Your task to perform on an android device: Open the Play Movies app and select the watchlist tab. Image 0: 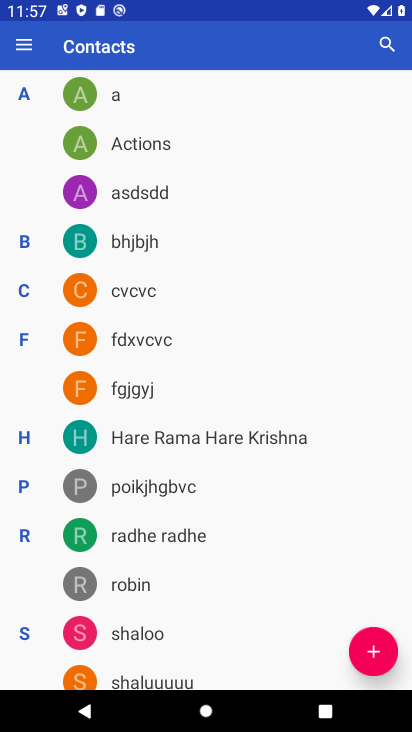
Step 0: press back button
Your task to perform on an android device: Open the Play Movies app and select the watchlist tab. Image 1: 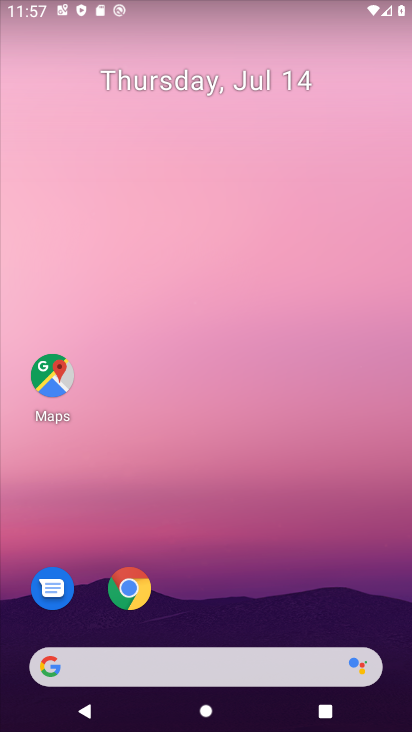
Step 1: drag from (378, 20) to (100, 228)
Your task to perform on an android device: Open the Play Movies app and select the watchlist tab. Image 2: 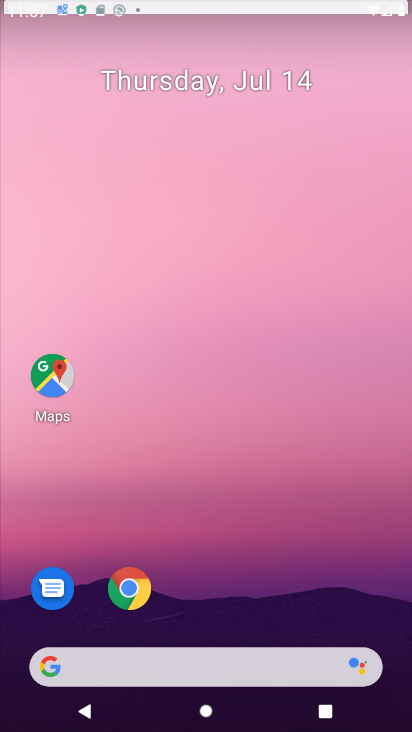
Step 2: drag from (286, 601) to (312, 85)
Your task to perform on an android device: Open the Play Movies app and select the watchlist tab. Image 3: 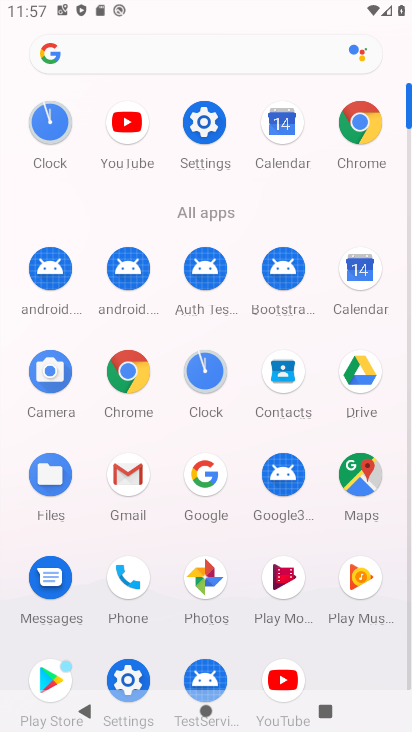
Step 3: click (289, 673)
Your task to perform on an android device: Open the Play Movies app and select the watchlist tab. Image 4: 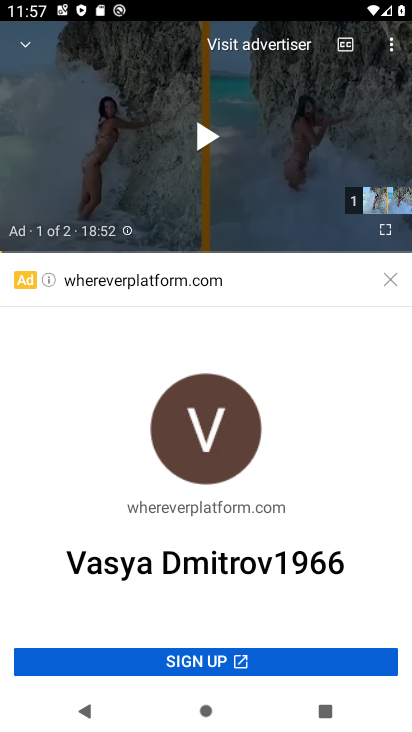
Step 4: press back button
Your task to perform on an android device: Open the Play Movies app and select the watchlist tab. Image 5: 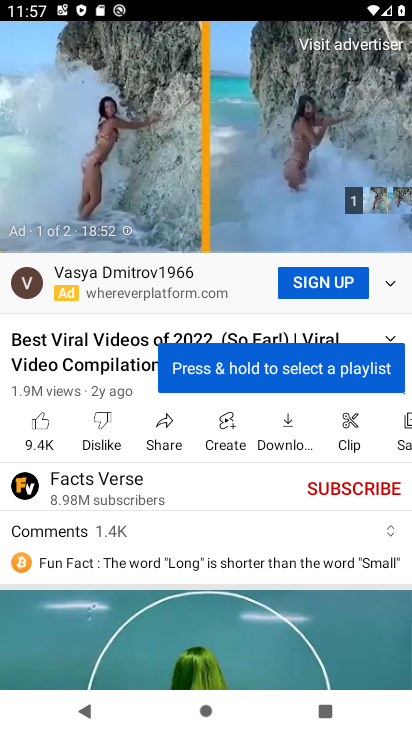
Step 5: press back button
Your task to perform on an android device: Open the Play Movies app and select the watchlist tab. Image 6: 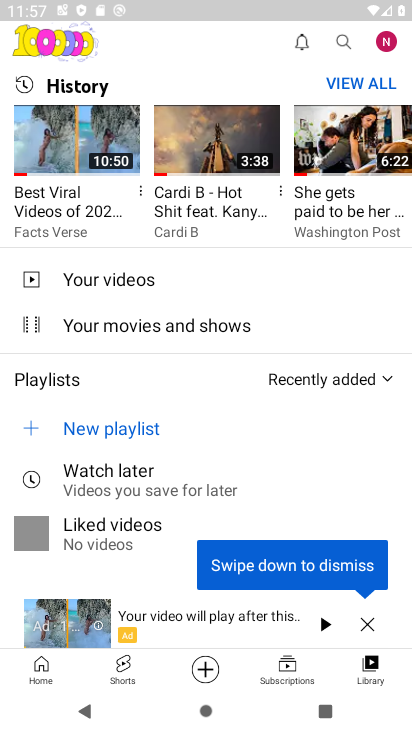
Step 6: press home button
Your task to perform on an android device: Open the Play Movies app and select the watchlist tab. Image 7: 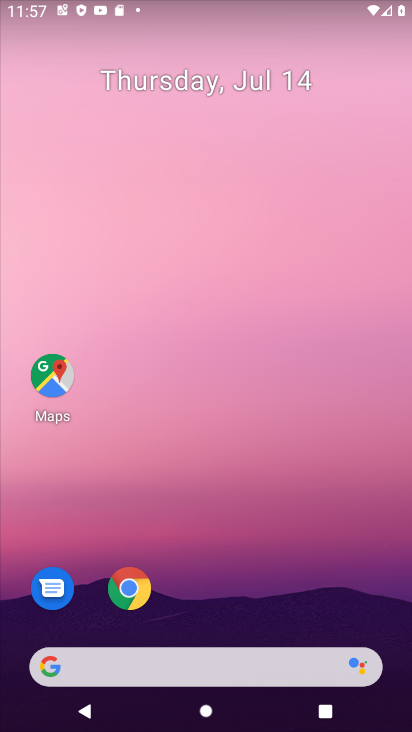
Step 7: drag from (253, 541) to (310, 0)
Your task to perform on an android device: Open the Play Movies app and select the watchlist tab. Image 8: 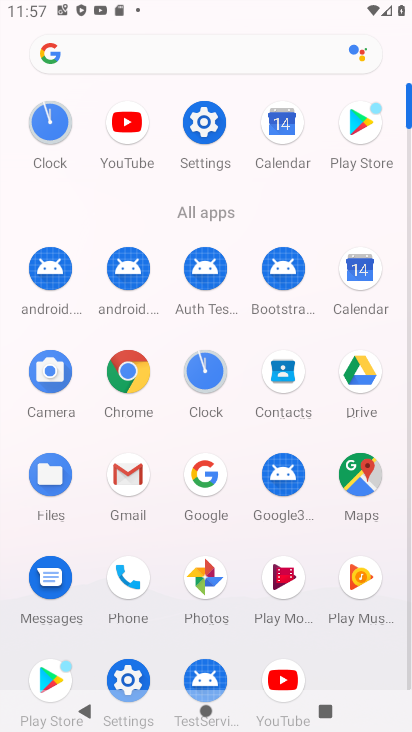
Step 8: click (288, 581)
Your task to perform on an android device: Open the Play Movies app and select the watchlist tab. Image 9: 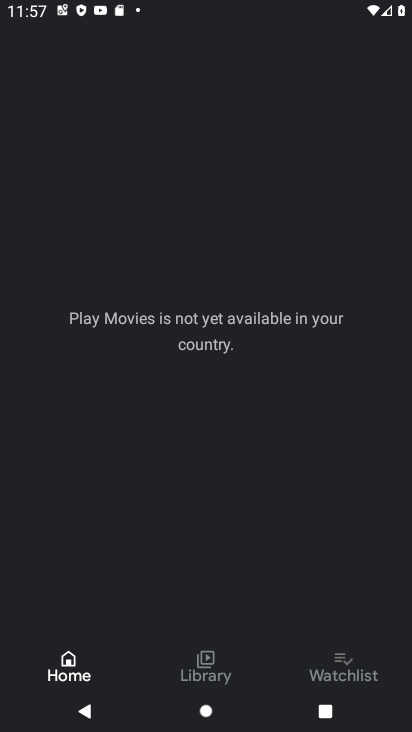
Step 9: click (337, 664)
Your task to perform on an android device: Open the Play Movies app and select the watchlist tab. Image 10: 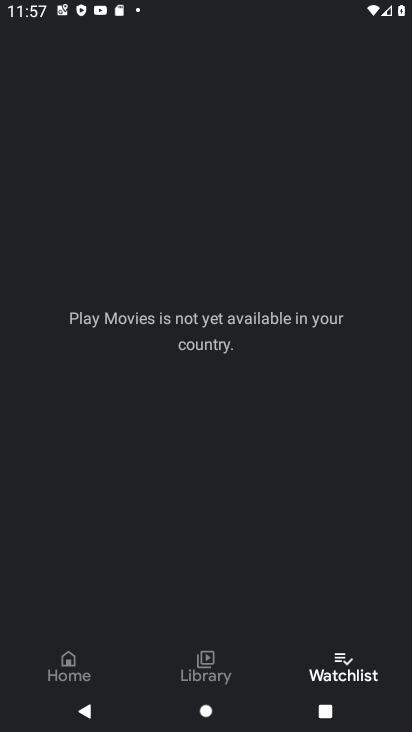
Step 10: task complete